Your task to perform on an android device: Search for Mexican restaurants on Maps Image 0: 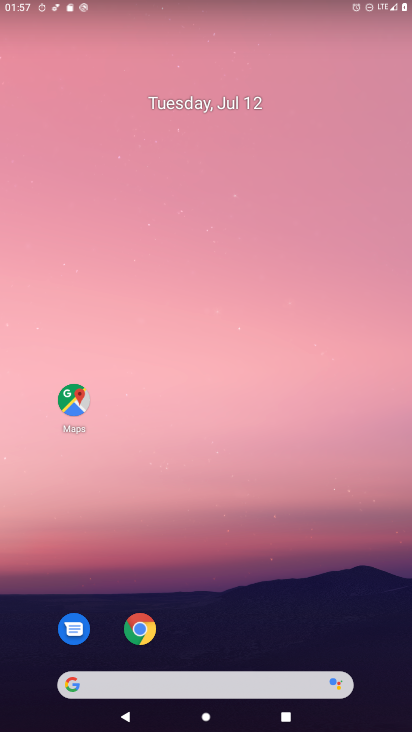
Step 0: click (65, 383)
Your task to perform on an android device: Search for Mexican restaurants on Maps Image 1: 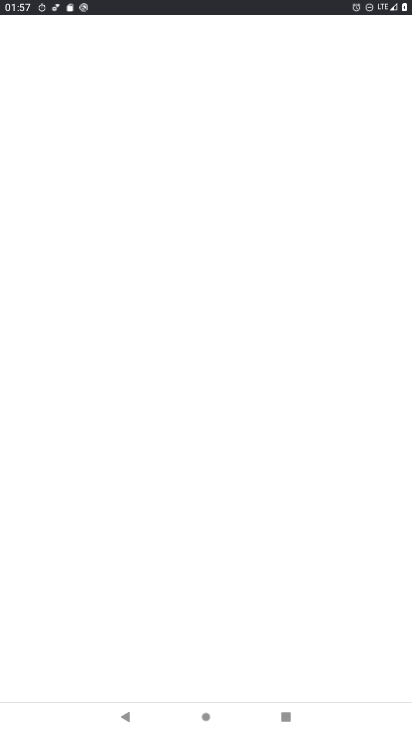
Step 1: click (68, 400)
Your task to perform on an android device: Search for Mexican restaurants on Maps Image 2: 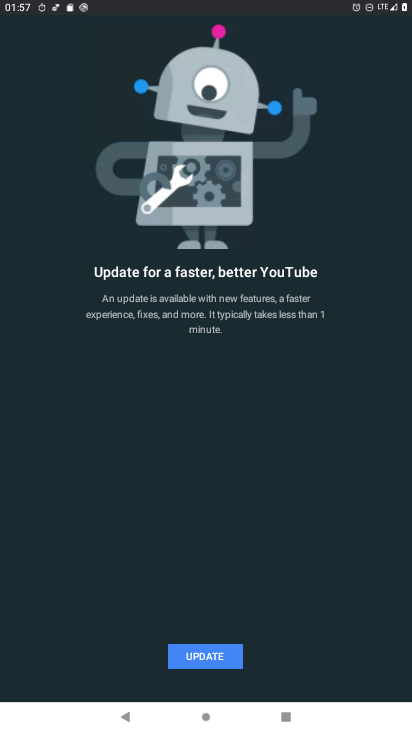
Step 2: press home button
Your task to perform on an android device: Search for Mexican restaurants on Maps Image 3: 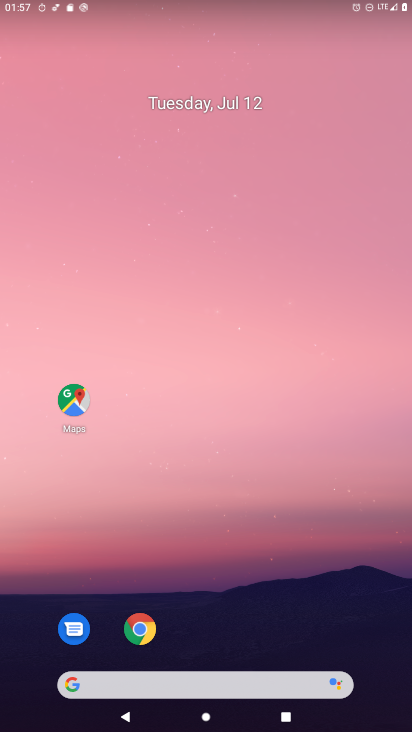
Step 3: click (63, 401)
Your task to perform on an android device: Search for Mexican restaurants on Maps Image 4: 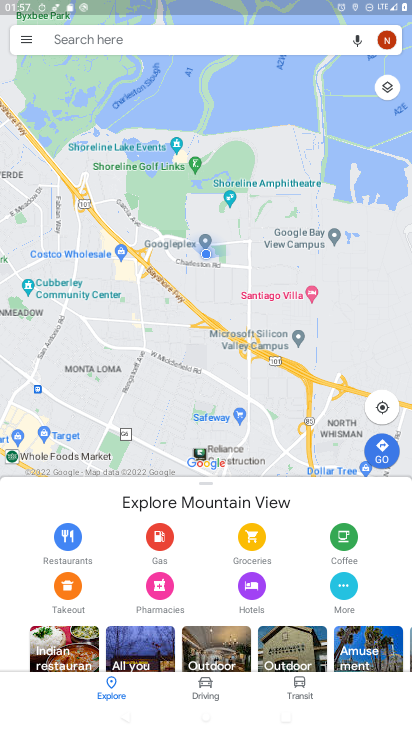
Step 4: click (68, 37)
Your task to perform on an android device: Search for Mexican restaurants on Maps Image 5: 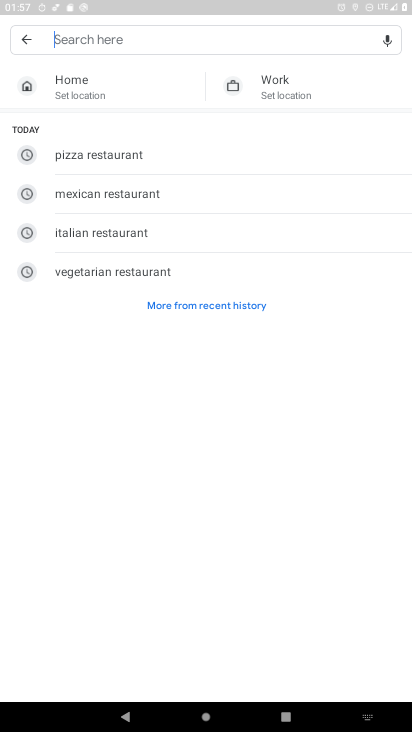
Step 5: type "Mexican restaurants"
Your task to perform on an android device: Search for Mexican restaurants on Maps Image 6: 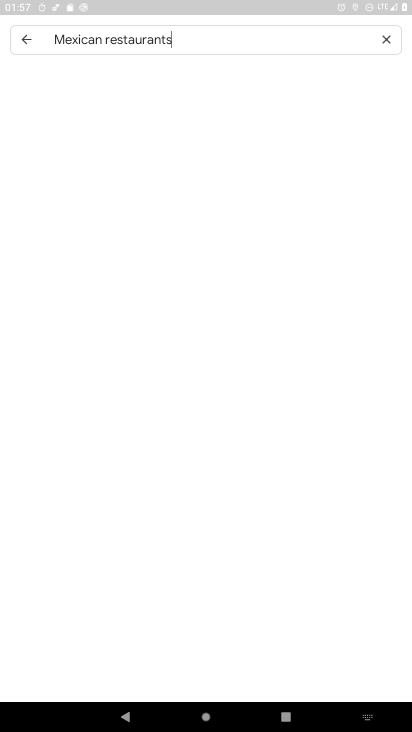
Step 6: type ""
Your task to perform on an android device: Search for Mexican restaurants on Maps Image 7: 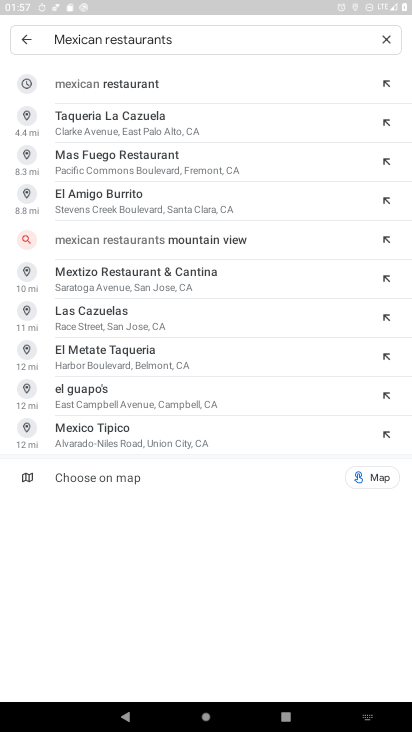
Step 7: click (113, 86)
Your task to perform on an android device: Search for Mexican restaurants on Maps Image 8: 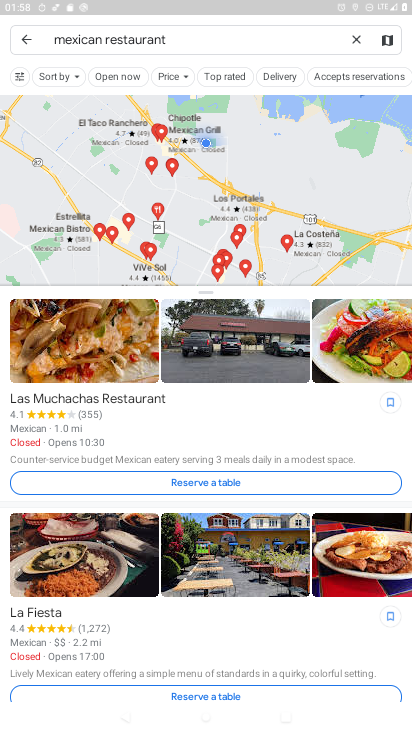
Step 8: task complete